Your task to perform on an android device: Go to sound settings Image 0: 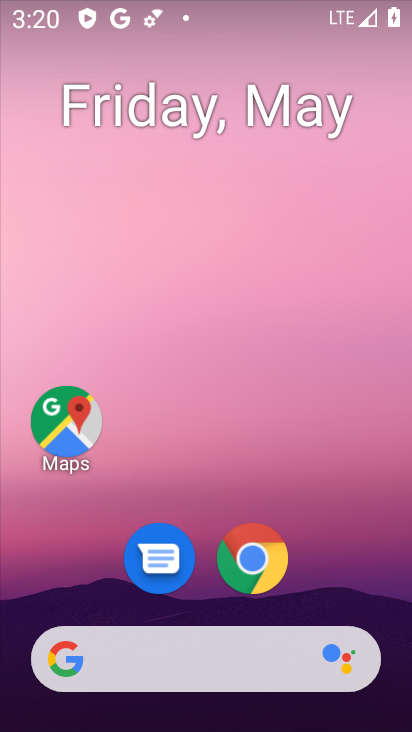
Step 0: press home button
Your task to perform on an android device: Go to sound settings Image 1: 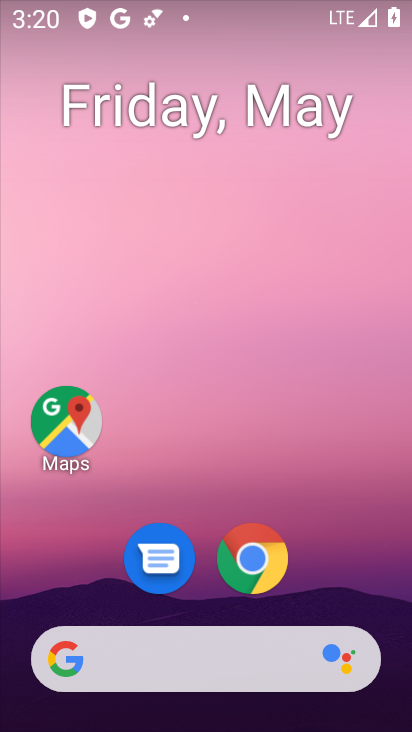
Step 1: drag from (202, 679) to (316, 183)
Your task to perform on an android device: Go to sound settings Image 2: 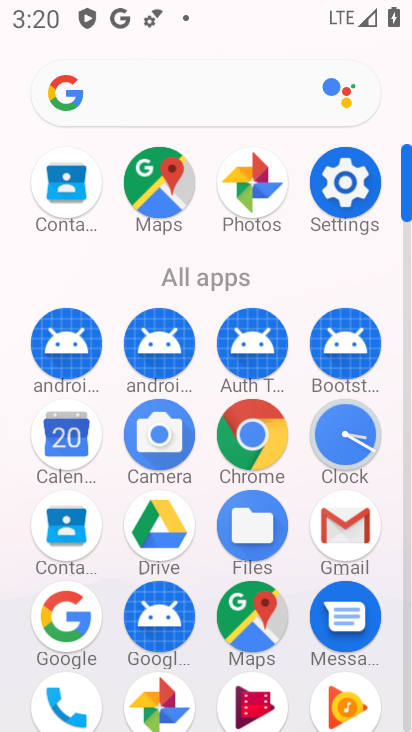
Step 2: click (339, 184)
Your task to perform on an android device: Go to sound settings Image 3: 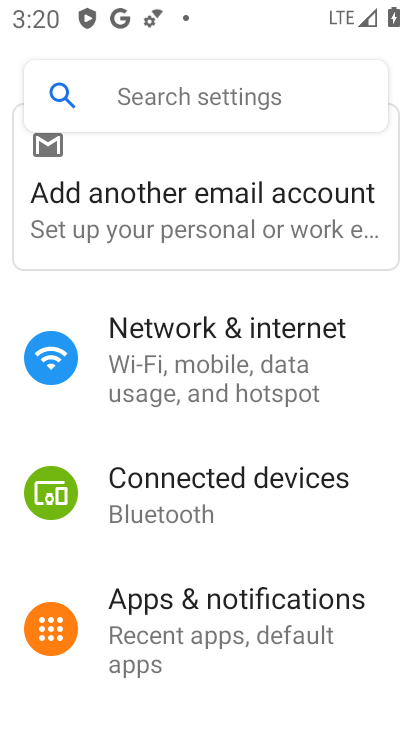
Step 3: drag from (204, 570) to (324, 202)
Your task to perform on an android device: Go to sound settings Image 4: 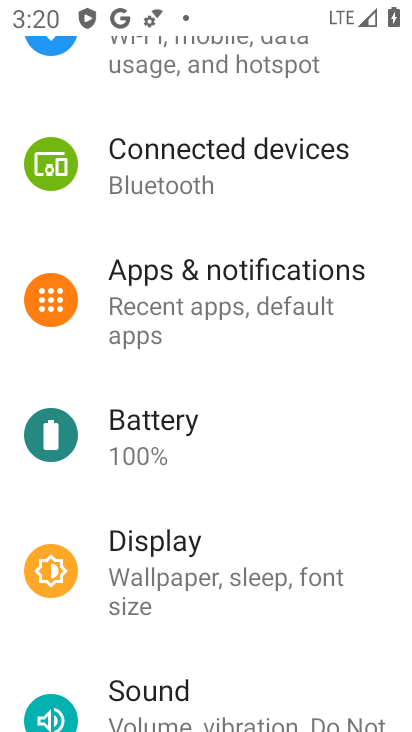
Step 4: click (175, 691)
Your task to perform on an android device: Go to sound settings Image 5: 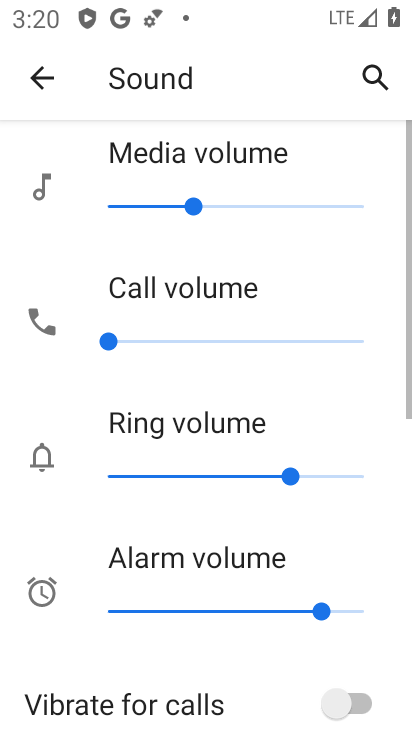
Step 5: task complete